Your task to perform on an android device: turn off location history Image 0: 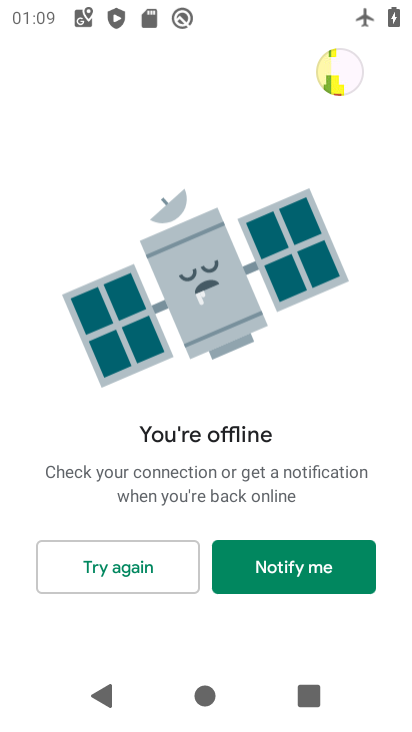
Step 0: press home button
Your task to perform on an android device: turn off location history Image 1: 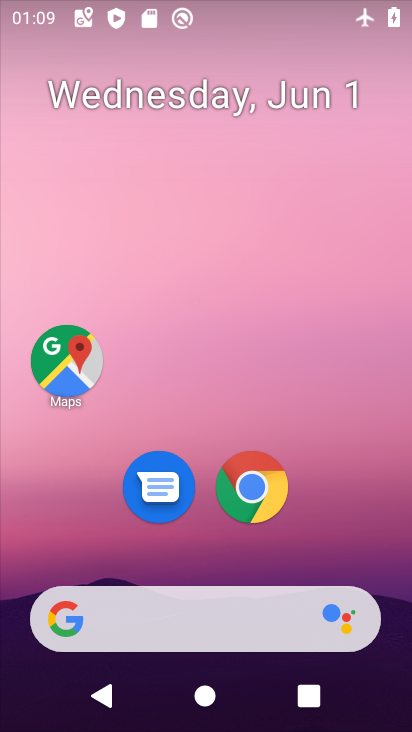
Step 1: drag from (296, 473) to (296, 241)
Your task to perform on an android device: turn off location history Image 2: 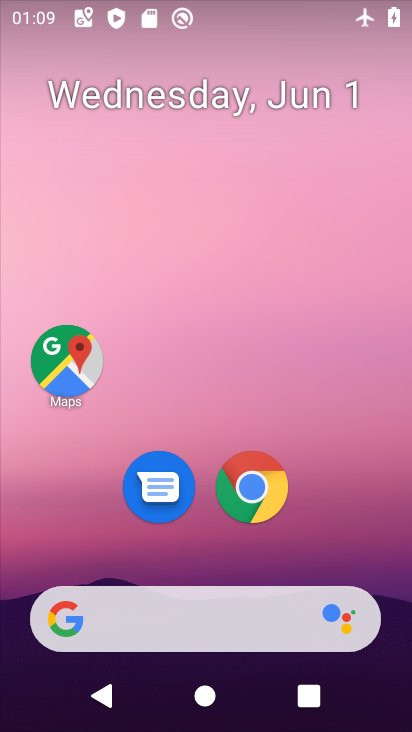
Step 2: drag from (332, 522) to (294, 142)
Your task to perform on an android device: turn off location history Image 3: 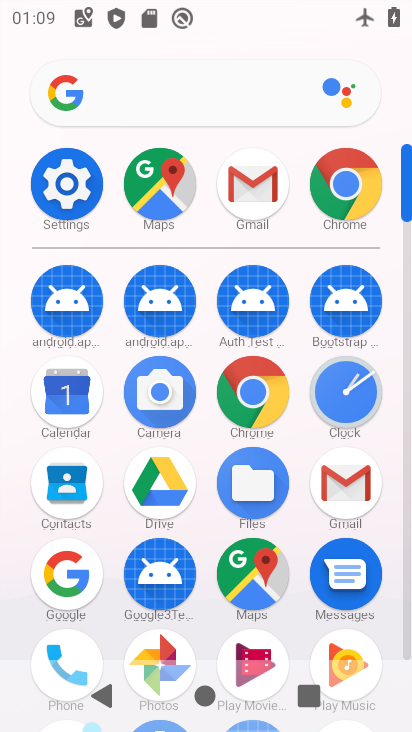
Step 3: click (59, 184)
Your task to perform on an android device: turn off location history Image 4: 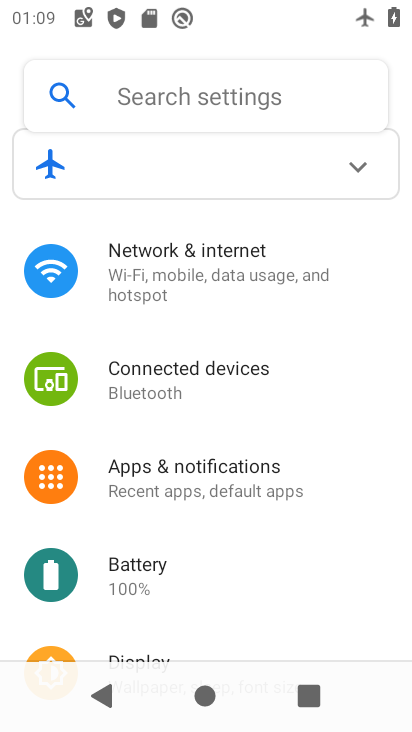
Step 4: drag from (189, 594) to (210, 259)
Your task to perform on an android device: turn off location history Image 5: 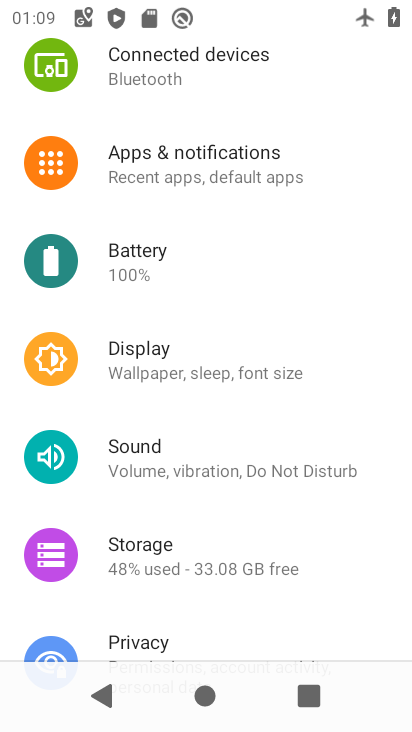
Step 5: drag from (189, 572) to (221, 264)
Your task to perform on an android device: turn off location history Image 6: 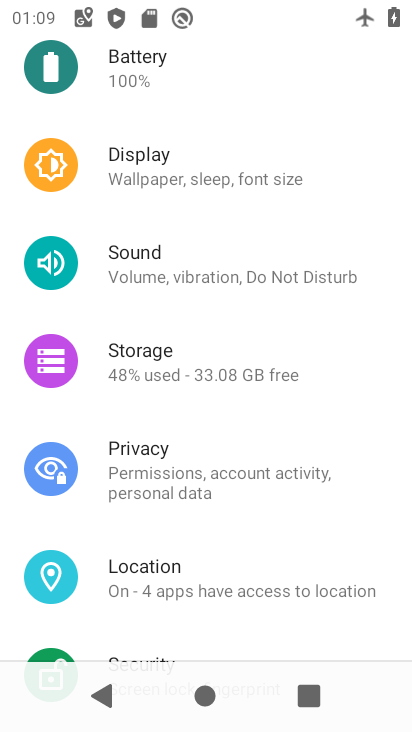
Step 6: click (185, 557)
Your task to perform on an android device: turn off location history Image 7: 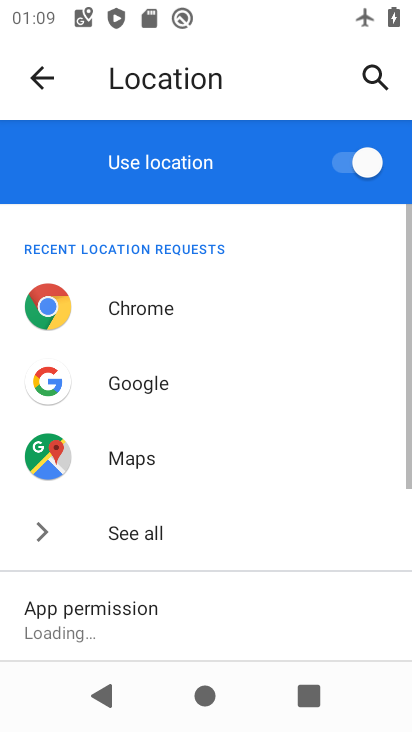
Step 7: drag from (218, 602) to (212, 330)
Your task to perform on an android device: turn off location history Image 8: 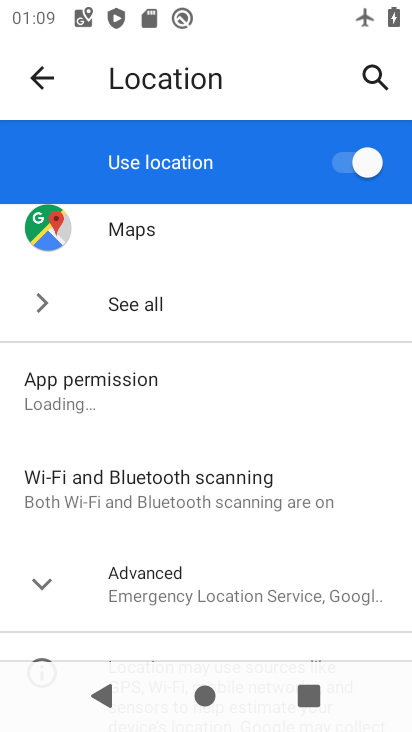
Step 8: drag from (200, 571) to (247, 254)
Your task to perform on an android device: turn off location history Image 9: 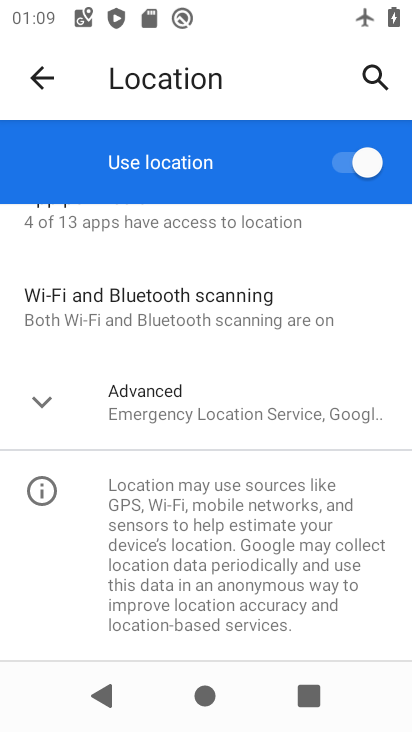
Step 9: click (150, 396)
Your task to perform on an android device: turn off location history Image 10: 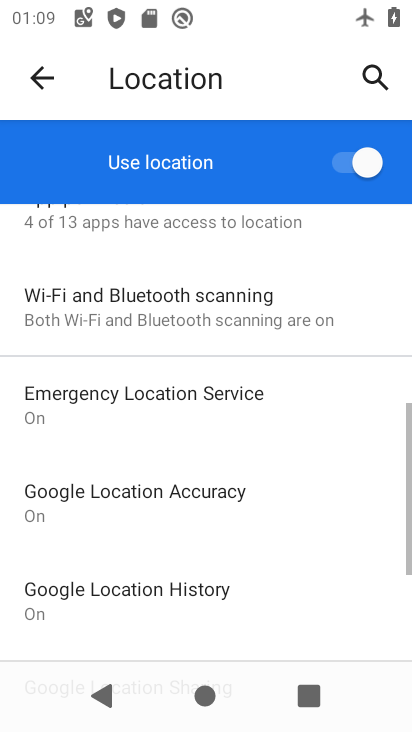
Step 10: drag from (150, 592) to (171, 433)
Your task to perform on an android device: turn off location history Image 11: 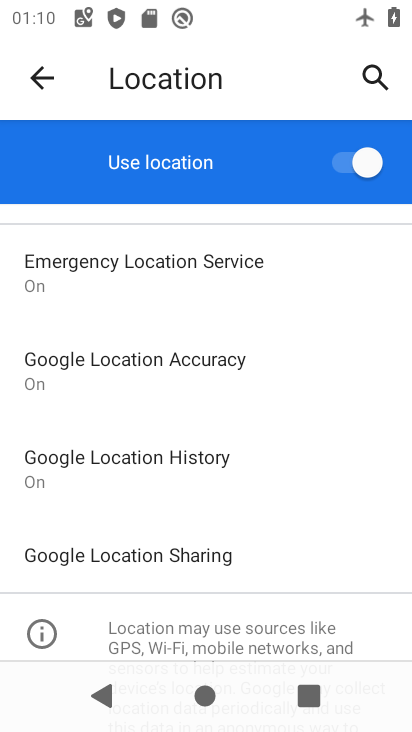
Step 11: click (130, 461)
Your task to perform on an android device: turn off location history Image 12: 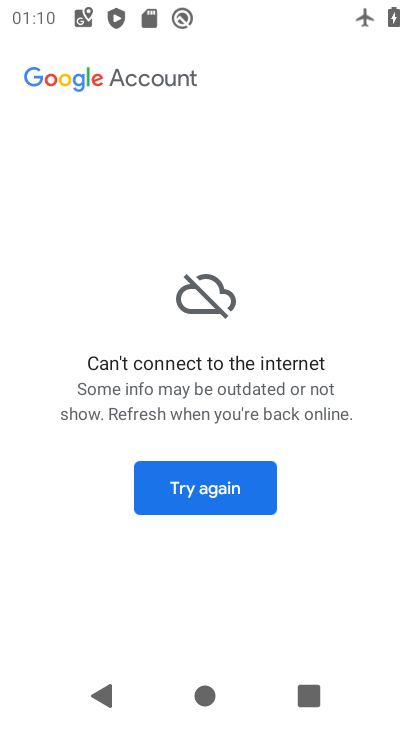
Step 12: task complete